Your task to perform on an android device: Open the stopwatch Image 0: 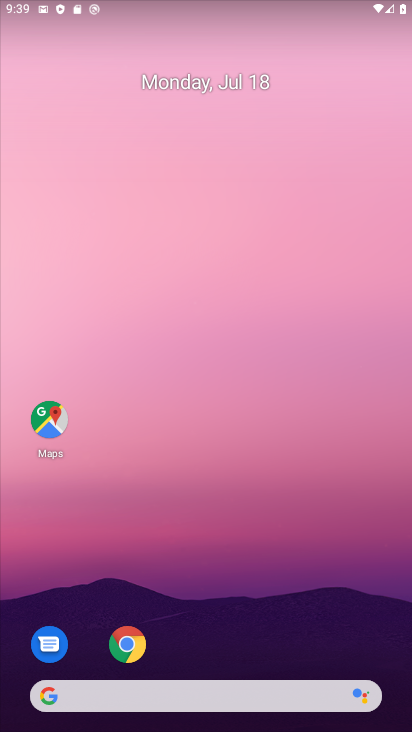
Step 0: drag from (251, 591) to (212, 114)
Your task to perform on an android device: Open the stopwatch Image 1: 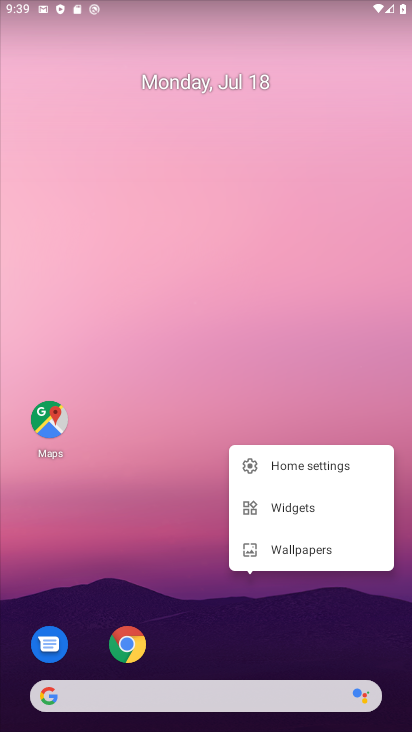
Step 1: click (259, 329)
Your task to perform on an android device: Open the stopwatch Image 2: 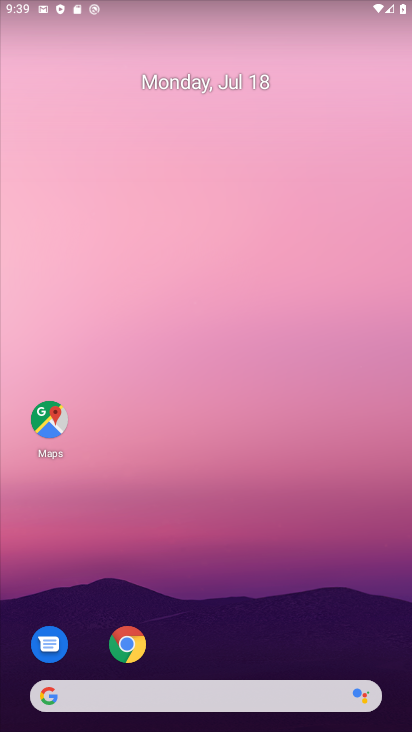
Step 2: drag from (205, 380) to (311, 28)
Your task to perform on an android device: Open the stopwatch Image 3: 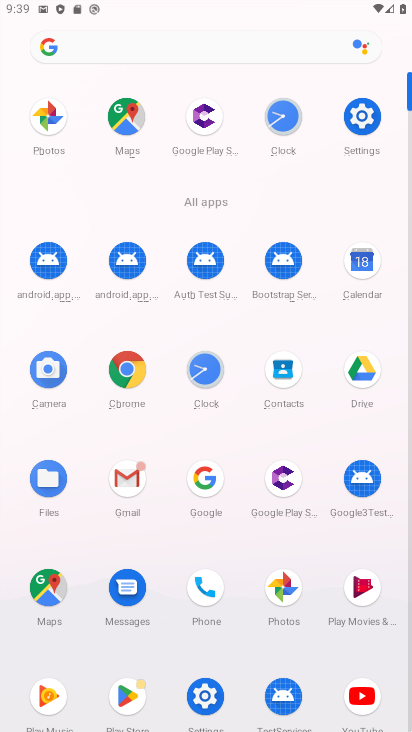
Step 3: click (284, 131)
Your task to perform on an android device: Open the stopwatch Image 4: 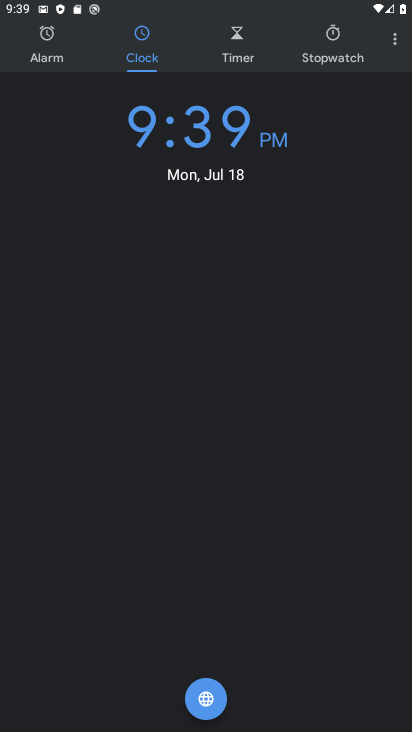
Step 4: click (336, 36)
Your task to perform on an android device: Open the stopwatch Image 5: 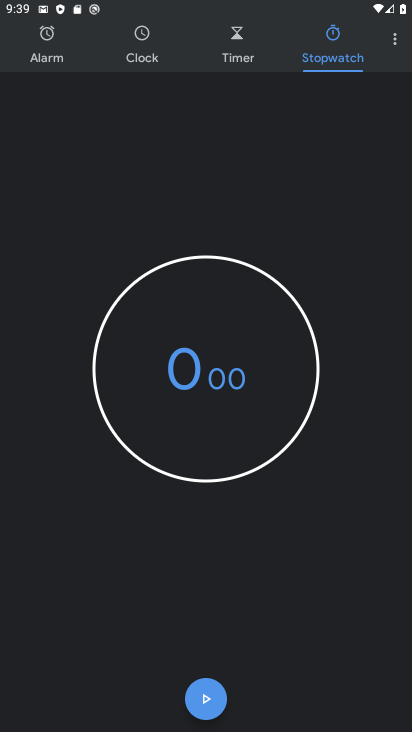
Step 5: click (202, 688)
Your task to perform on an android device: Open the stopwatch Image 6: 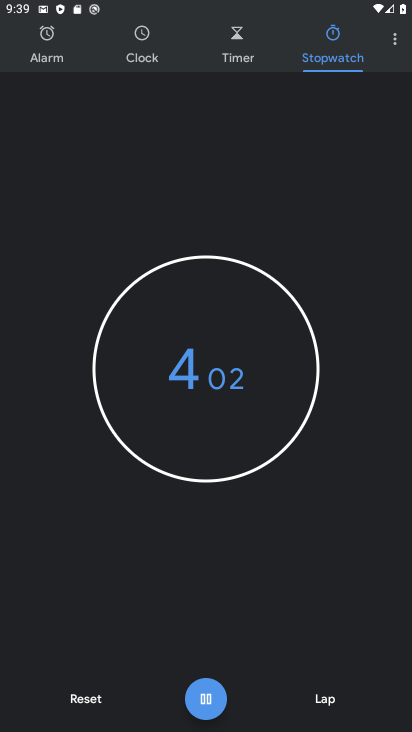
Step 6: task complete